Your task to perform on an android device: Open wifi settings Image 0: 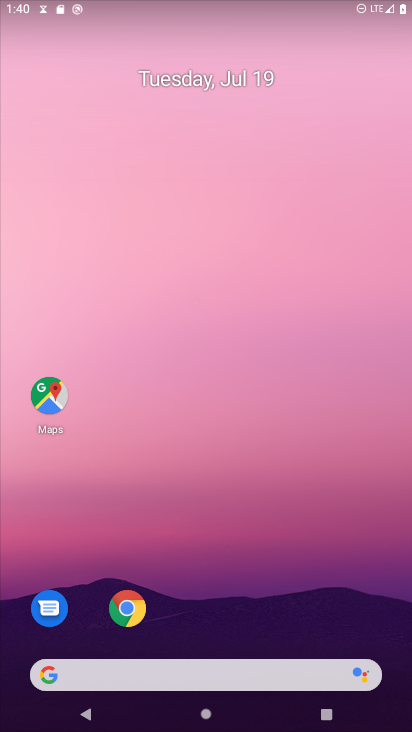
Step 0: drag from (183, 677) to (410, 177)
Your task to perform on an android device: Open wifi settings Image 1: 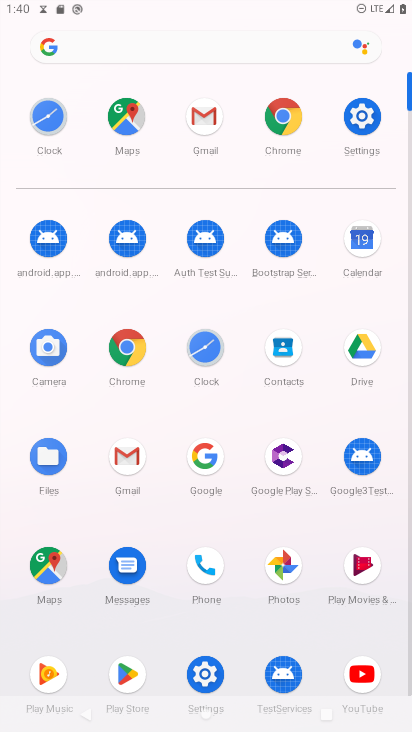
Step 1: click (368, 108)
Your task to perform on an android device: Open wifi settings Image 2: 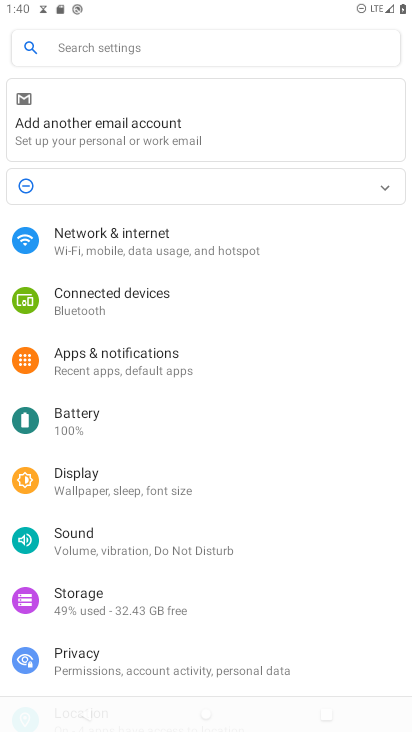
Step 2: click (143, 247)
Your task to perform on an android device: Open wifi settings Image 3: 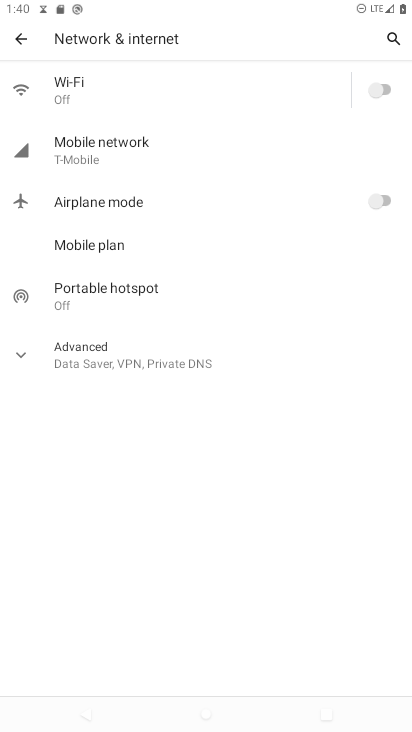
Step 3: task complete